Your task to perform on an android device: change the clock display to digital Image 0: 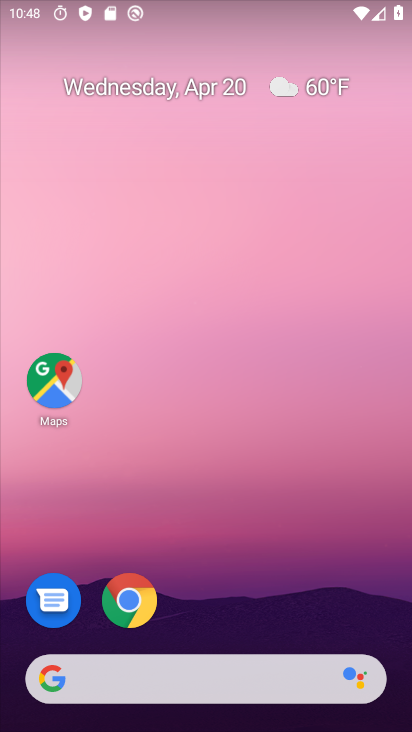
Step 0: drag from (217, 619) to (223, 133)
Your task to perform on an android device: change the clock display to digital Image 1: 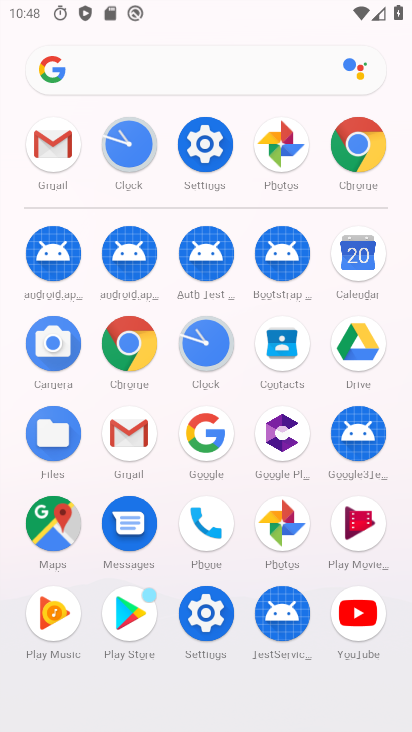
Step 1: click (115, 128)
Your task to perform on an android device: change the clock display to digital Image 2: 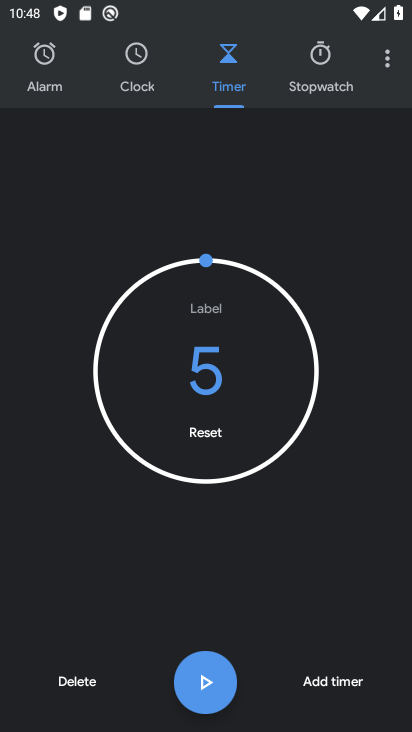
Step 2: click (393, 50)
Your task to perform on an android device: change the clock display to digital Image 3: 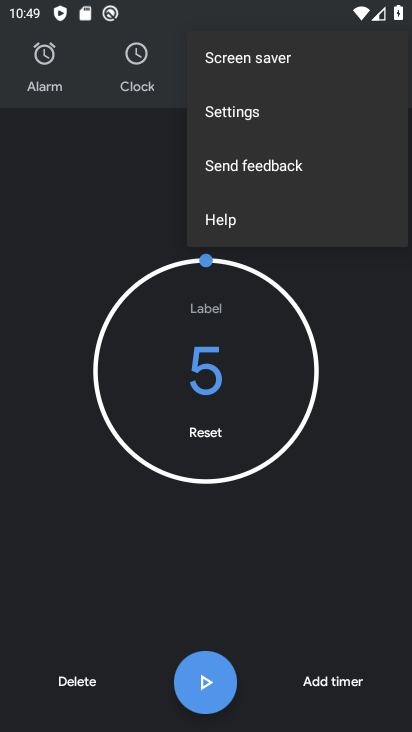
Step 3: click (254, 114)
Your task to perform on an android device: change the clock display to digital Image 4: 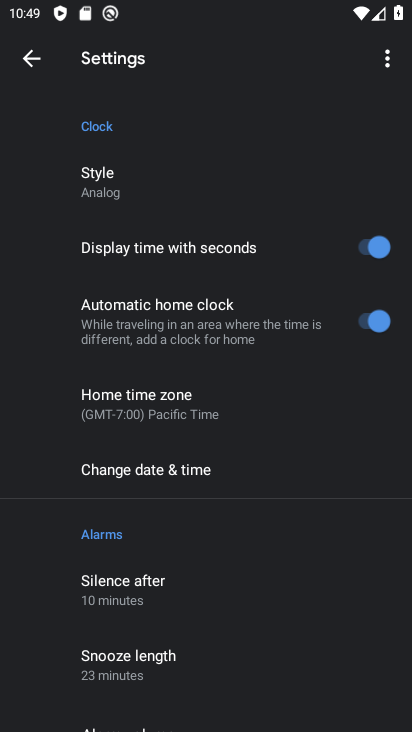
Step 4: click (184, 176)
Your task to perform on an android device: change the clock display to digital Image 5: 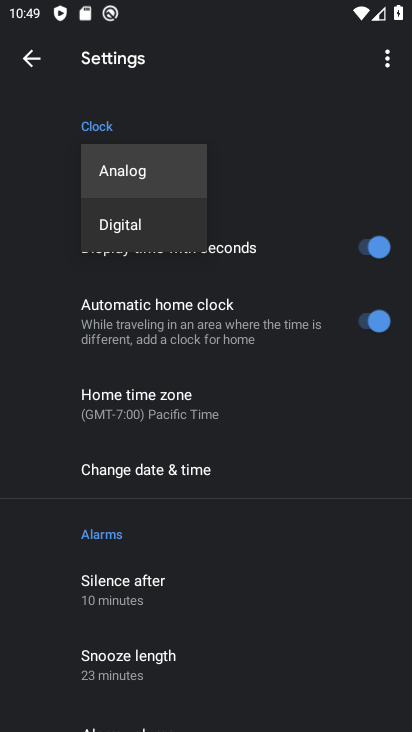
Step 5: click (177, 221)
Your task to perform on an android device: change the clock display to digital Image 6: 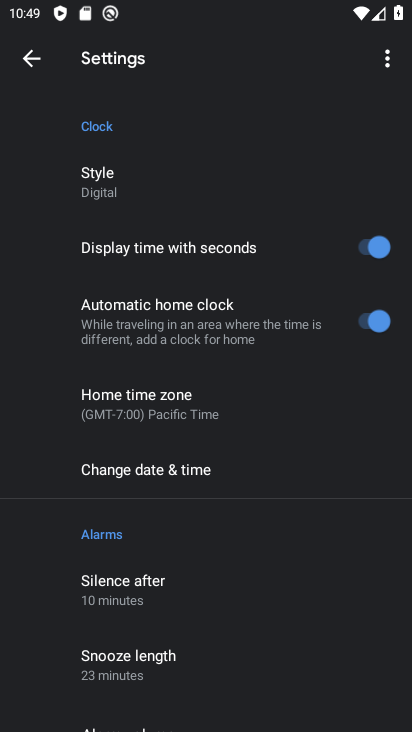
Step 6: task complete